Your task to perform on an android device: check storage Image 0: 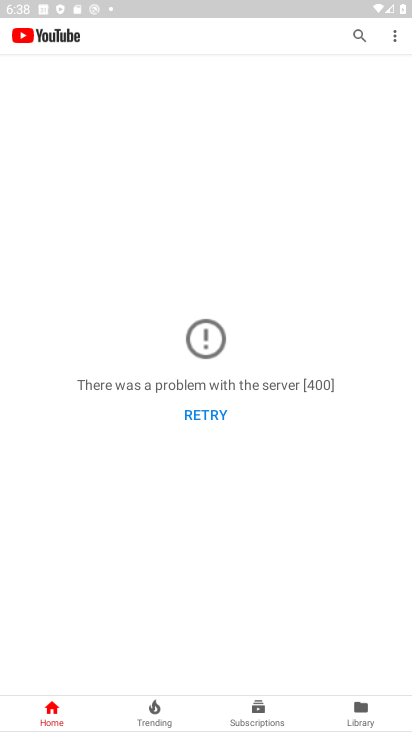
Step 0: press home button
Your task to perform on an android device: check storage Image 1: 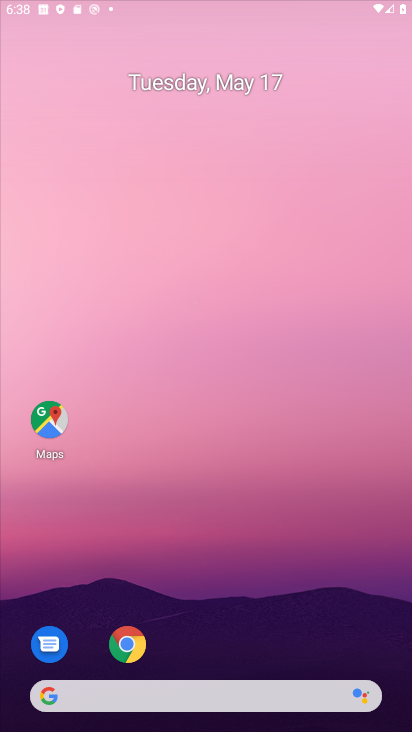
Step 1: drag from (396, 644) to (292, 82)
Your task to perform on an android device: check storage Image 2: 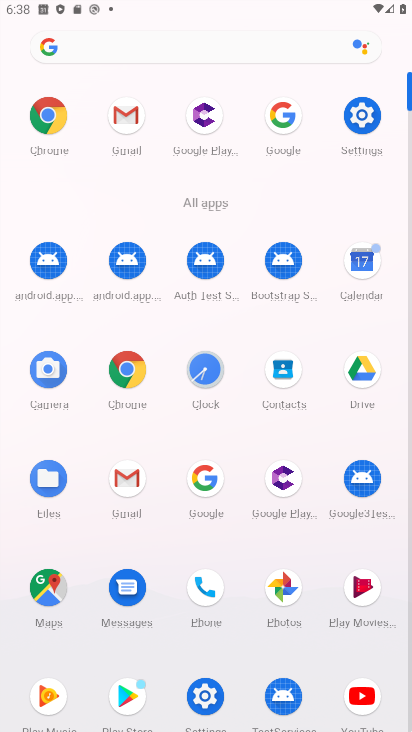
Step 2: click (202, 689)
Your task to perform on an android device: check storage Image 3: 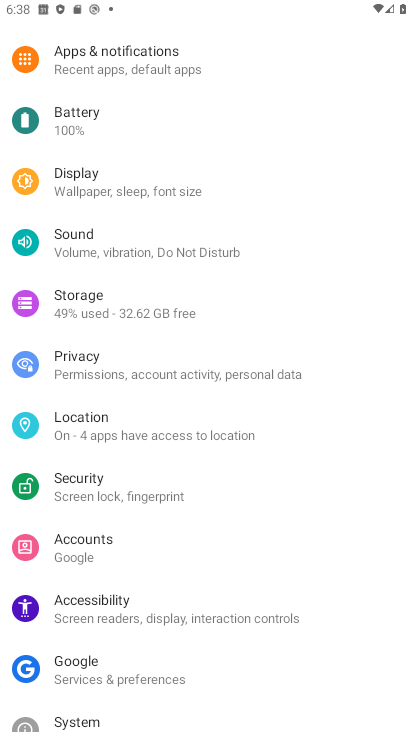
Step 3: click (143, 307)
Your task to perform on an android device: check storage Image 4: 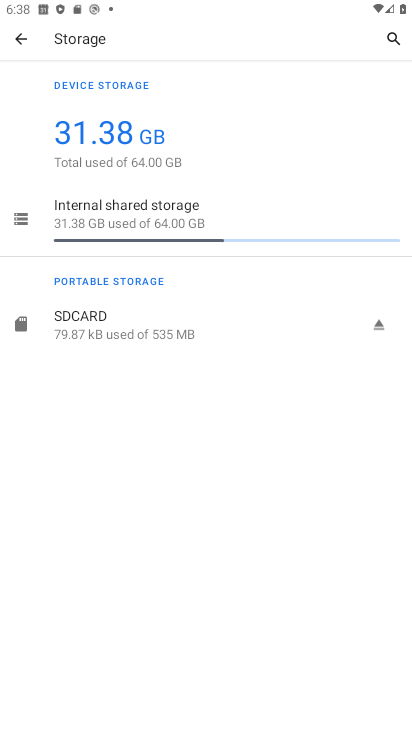
Step 4: click (126, 217)
Your task to perform on an android device: check storage Image 5: 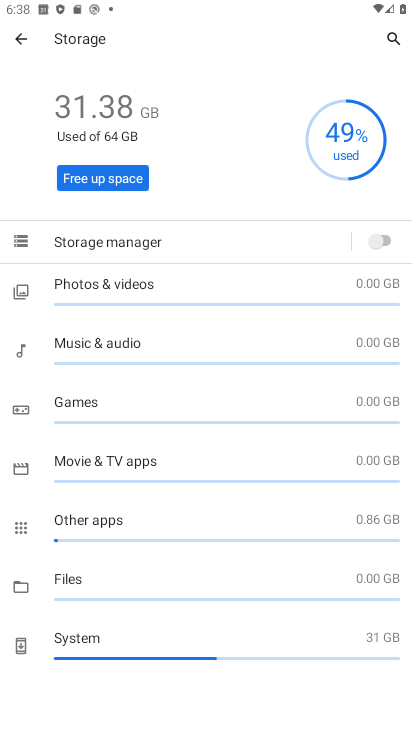
Step 5: task complete